Your task to perform on an android device: Open Google Maps and go to "Timeline" Image 0: 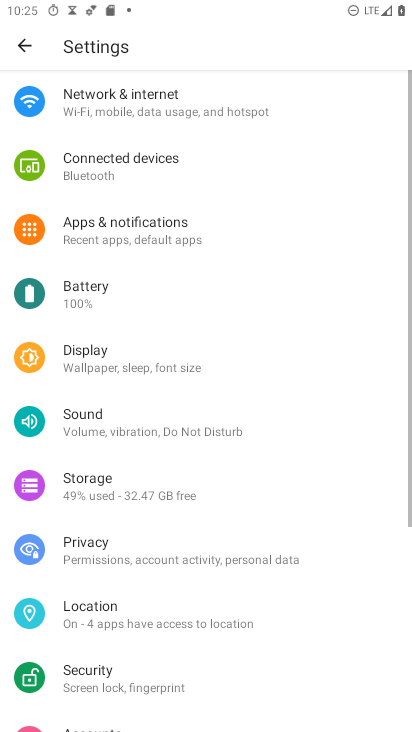
Step 0: press home button
Your task to perform on an android device: Open Google Maps and go to "Timeline" Image 1: 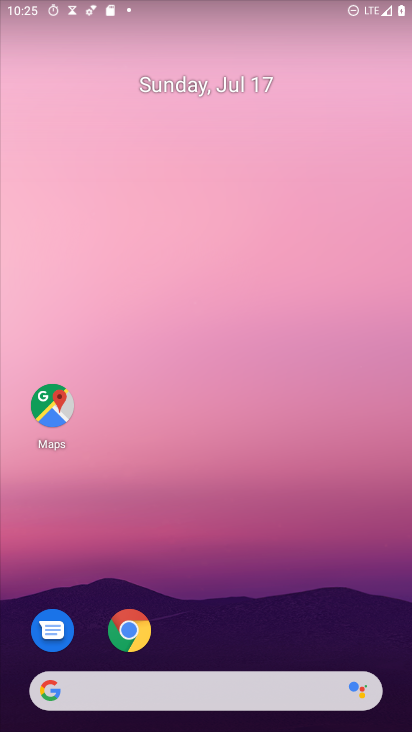
Step 1: drag from (292, 646) to (248, 3)
Your task to perform on an android device: Open Google Maps and go to "Timeline" Image 2: 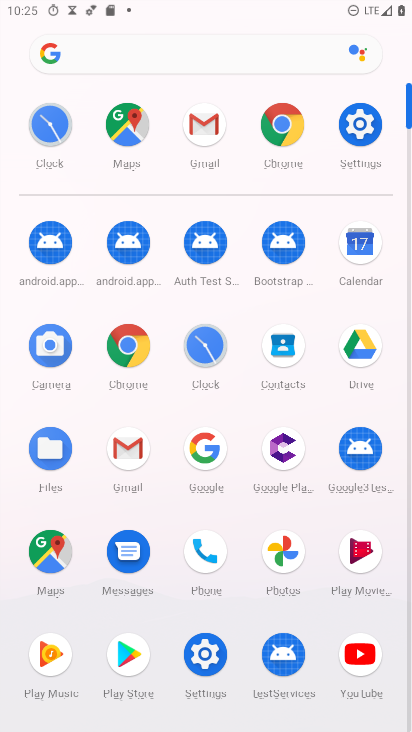
Step 2: click (57, 542)
Your task to perform on an android device: Open Google Maps and go to "Timeline" Image 3: 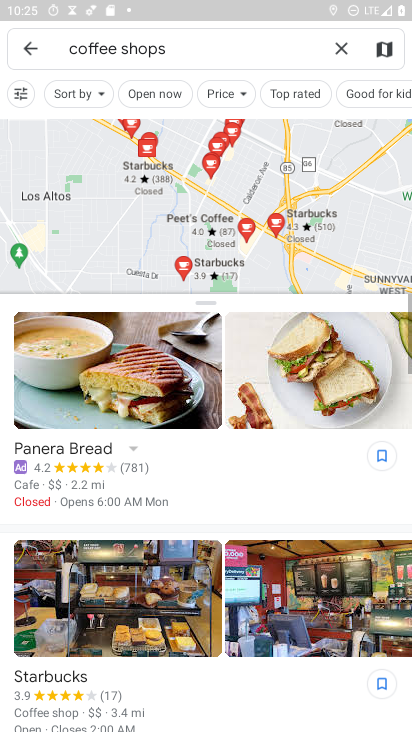
Step 3: press back button
Your task to perform on an android device: Open Google Maps and go to "Timeline" Image 4: 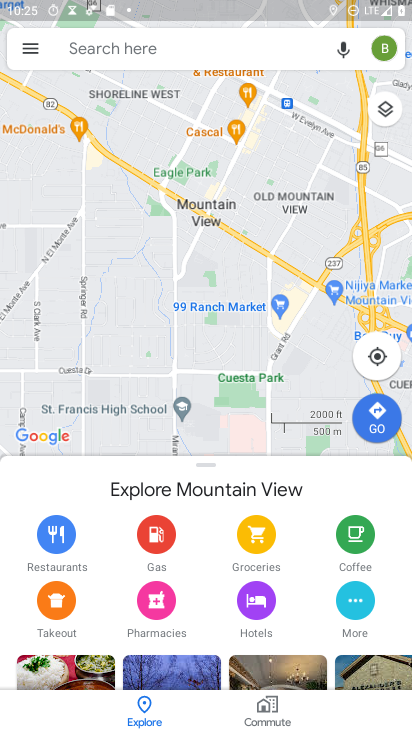
Step 4: click (29, 49)
Your task to perform on an android device: Open Google Maps and go to "Timeline" Image 5: 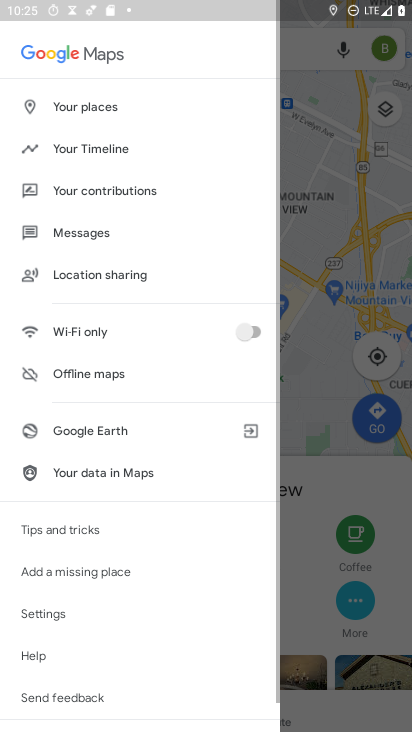
Step 5: click (55, 154)
Your task to perform on an android device: Open Google Maps and go to "Timeline" Image 6: 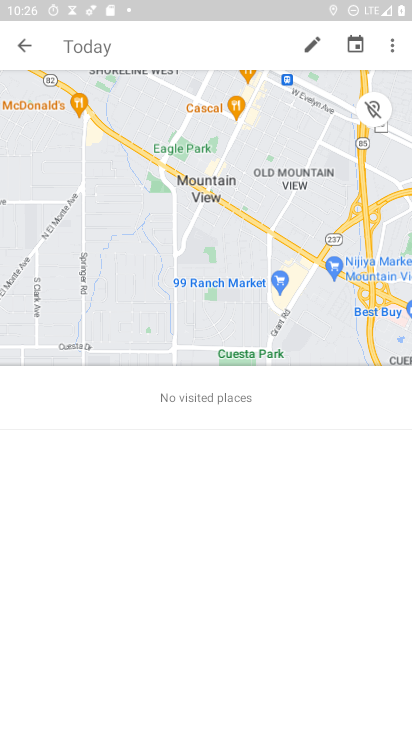
Step 6: task complete